Your task to perform on an android device: change the clock style Image 0: 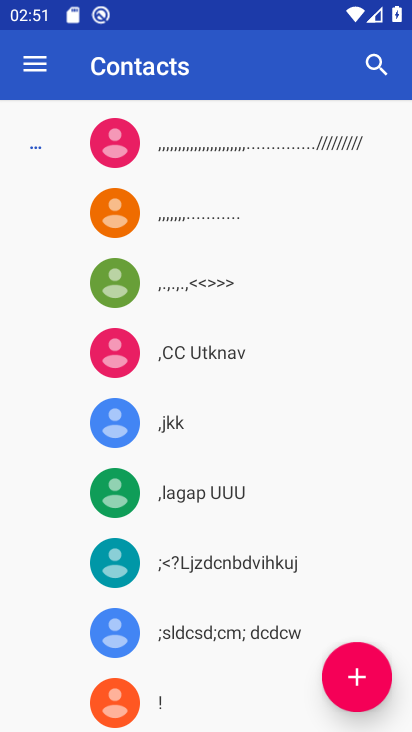
Step 0: press home button
Your task to perform on an android device: change the clock style Image 1: 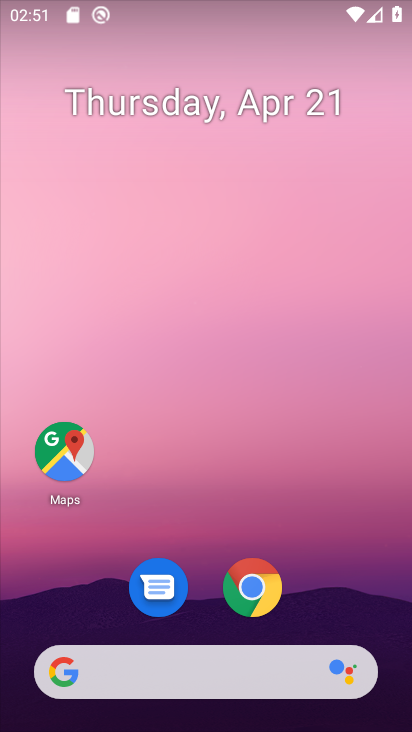
Step 1: drag from (347, 591) to (359, 160)
Your task to perform on an android device: change the clock style Image 2: 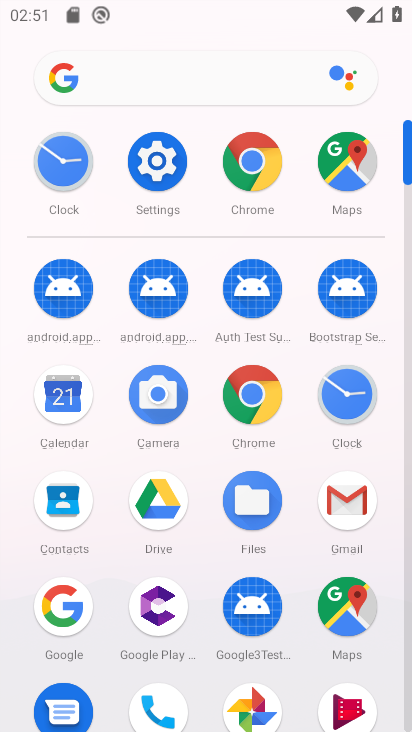
Step 2: click (347, 395)
Your task to perform on an android device: change the clock style Image 3: 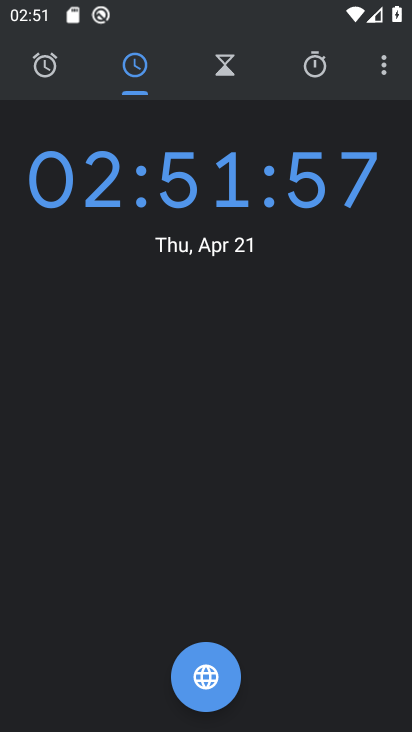
Step 3: click (384, 79)
Your task to perform on an android device: change the clock style Image 4: 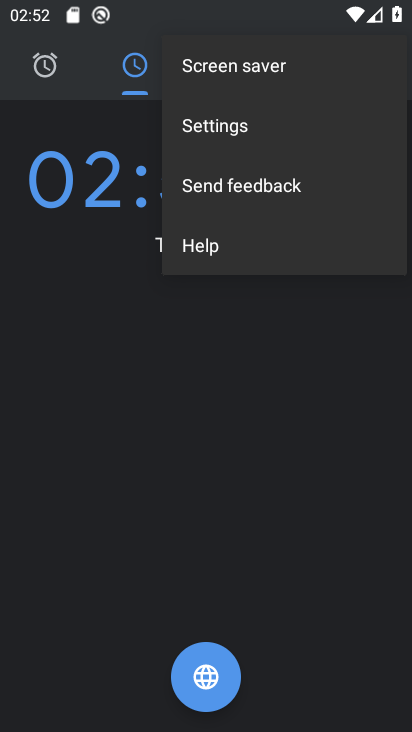
Step 4: click (305, 129)
Your task to perform on an android device: change the clock style Image 5: 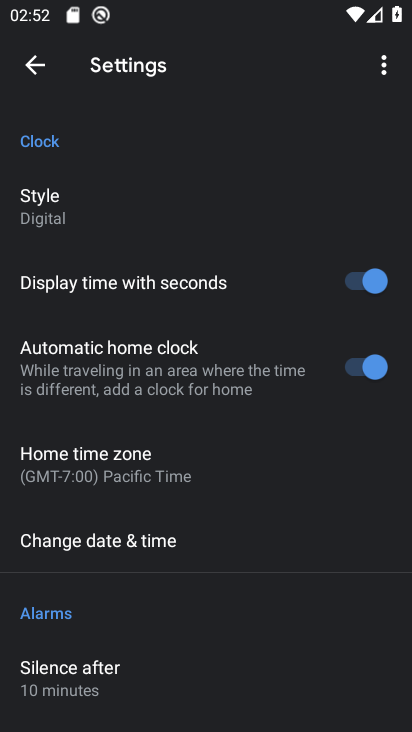
Step 5: drag from (308, 610) to (305, 502)
Your task to perform on an android device: change the clock style Image 6: 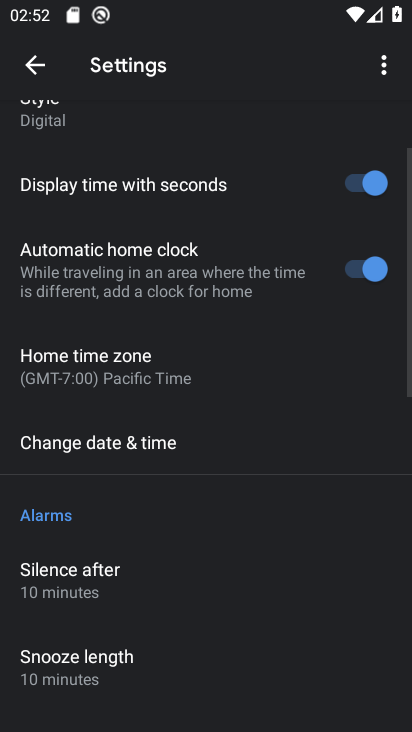
Step 6: drag from (319, 598) to (323, 517)
Your task to perform on an android device: change the clock style Image 7: 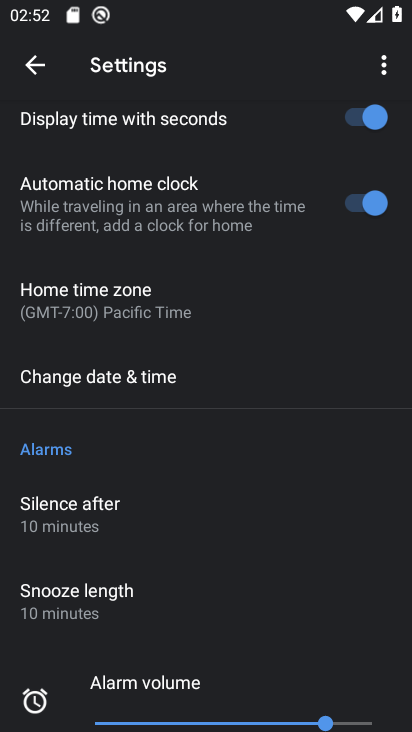
Step 7: drag from (334, 608) to (341, 503)
Your task to perform on an android device: change the clock style Image 8: 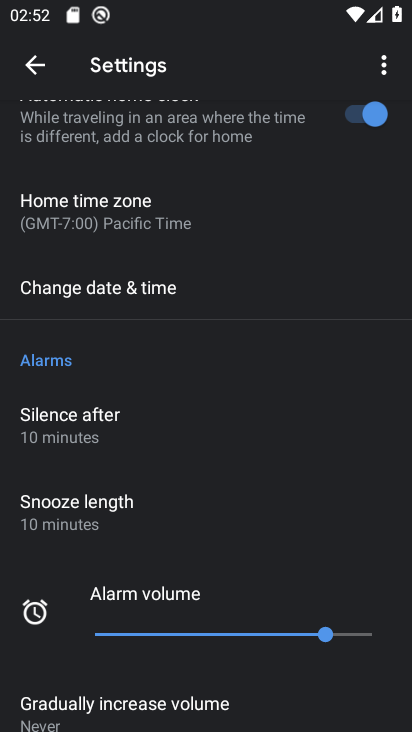
Step 8: drag from (354, 659) to (360, 514)
Your task to perform on an android device: change the clock style Image 9: 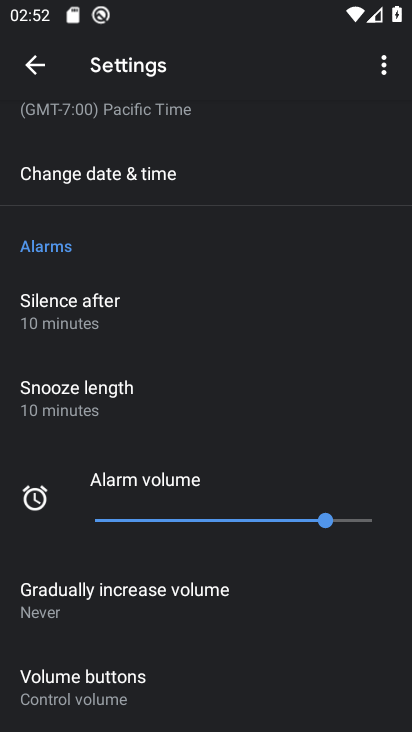
Step 9: drag from (348, 636) to (350, 486)
Your task to perform on an android device: change the clock style Image 10: 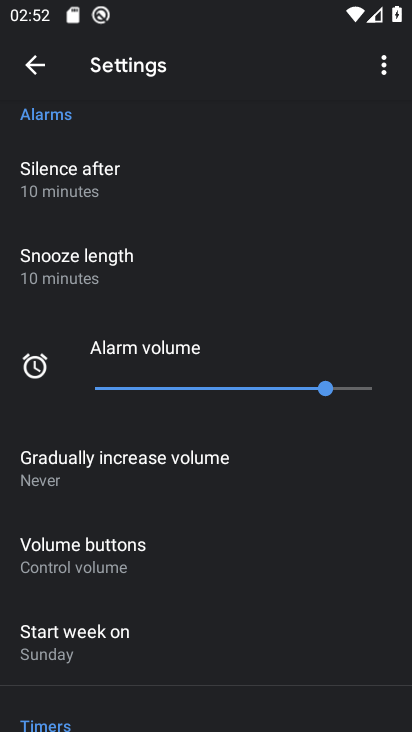
Step 10: drag from (339, 641) to (338, 486)
Your task to perform on an android device: change the clock style Image 11: 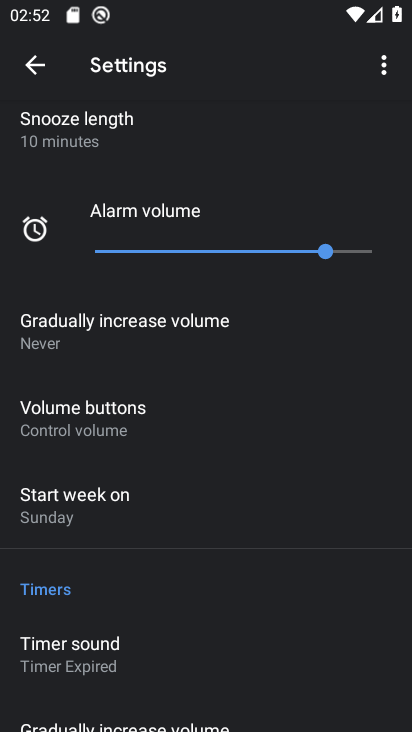
Step 11: drag from (331, 615) to (331, 475)
Your task to perform on an android device: change the clock style Image 12: 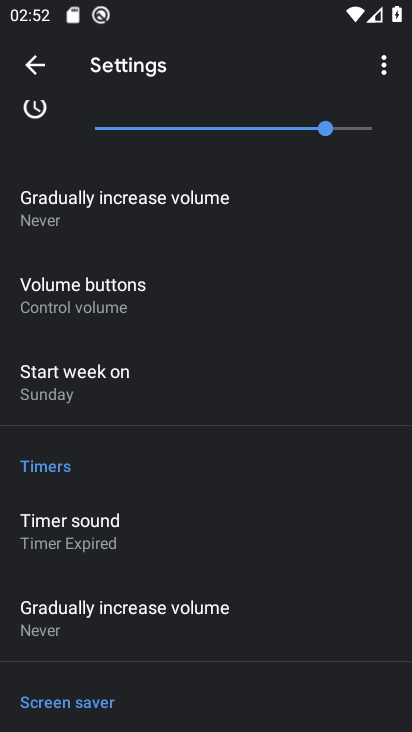
Step 12: drag from (334, 657) to (349, 461)
Your task to perform on an android device: change the clock style Image 13: 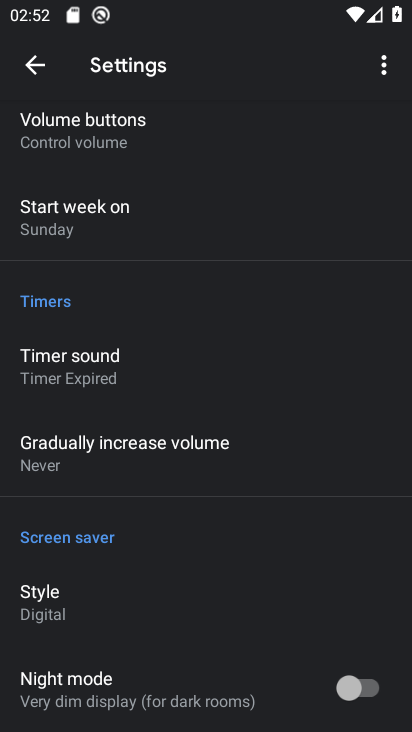
Step 13: drag from (370, 362) to (396, 538)
Your task to perform on an android device: change the clock style Image 14: 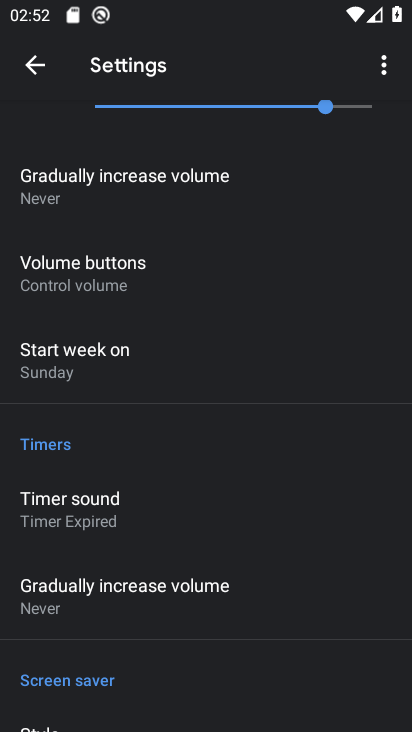
Step 14: drag from (366, 392) to (345, 530)
Your task to perform on an android device: change the clock style Image 15: 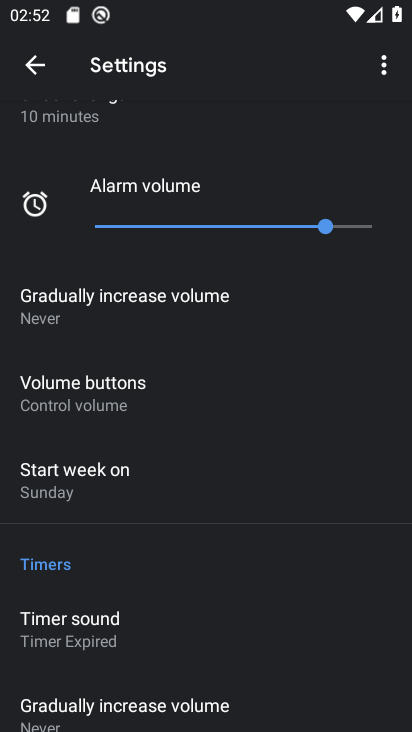
Step 15: drag from (349, 400) to (350, 530)
Your task to perform on an android device: change the clock style Image 16: 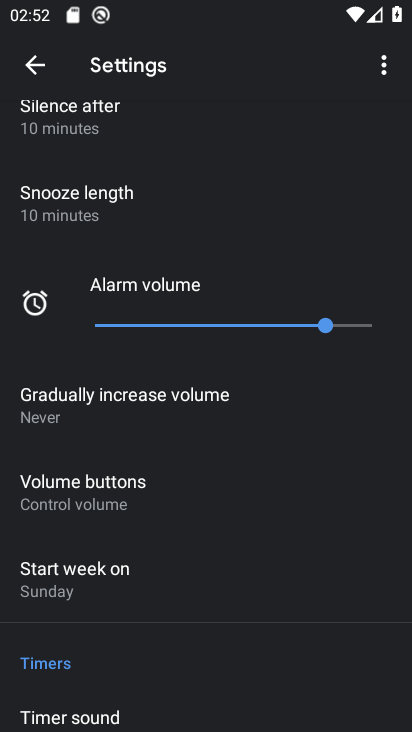
Step 16: drag from (363, 405) to (352, 537)
Your task to perform on an android device: change the clock style Image 17: 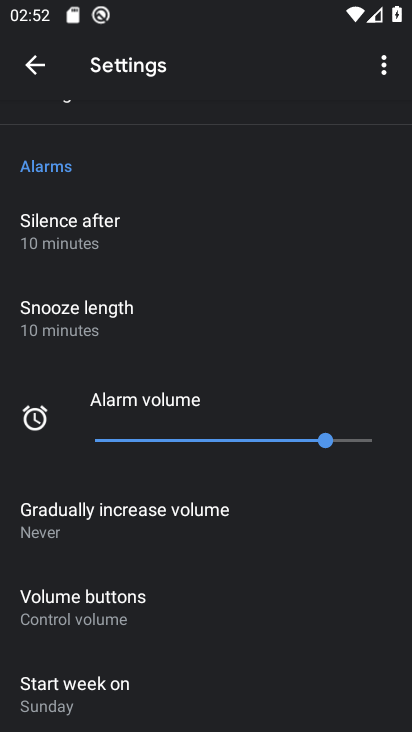
Step 17: drag from (372, 338) to (368, 500)
Your task to perform on an android device: change the clock style Image 18: 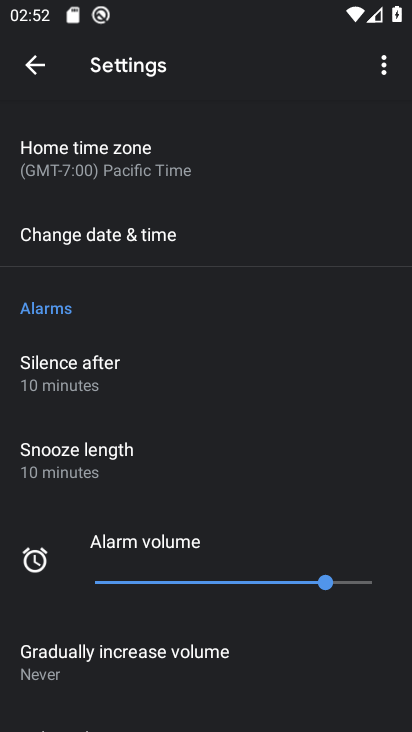
Step 18: drag from (357, 330) to (344, 477)
Your task to perform on an android device: change the clock style Image 19: 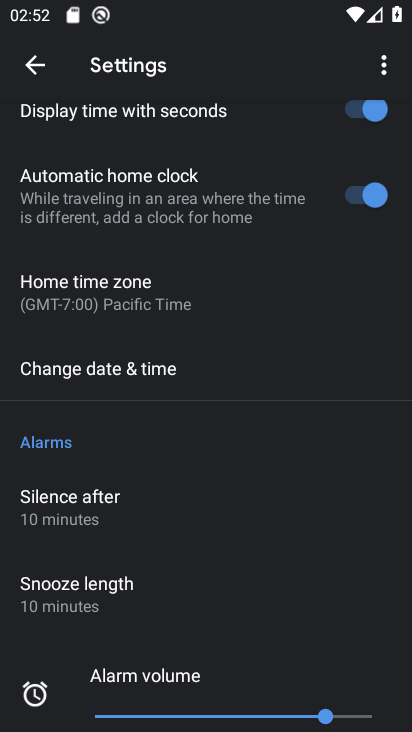
Step 19: drag from (322, 344) to (310, 570)
Your task to perform on an android device: change the clock style Image 20: 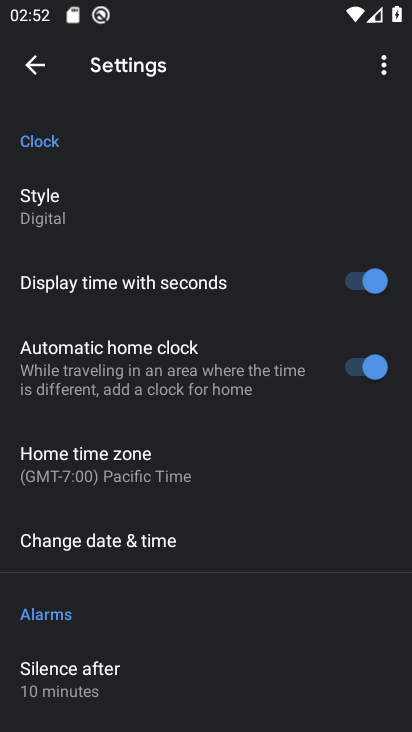
Step 20: click (62, 209)
Your task to perform on an android device: change the clock style Image 21: 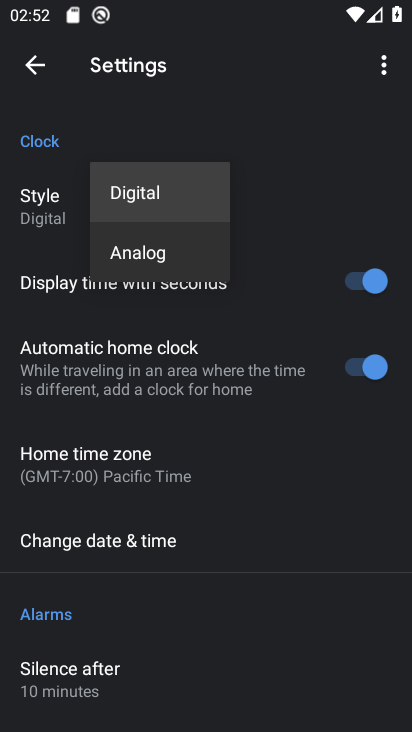
Step 21: click (143, 255)
Your task to perform on an android device: change the clock style Image 22: 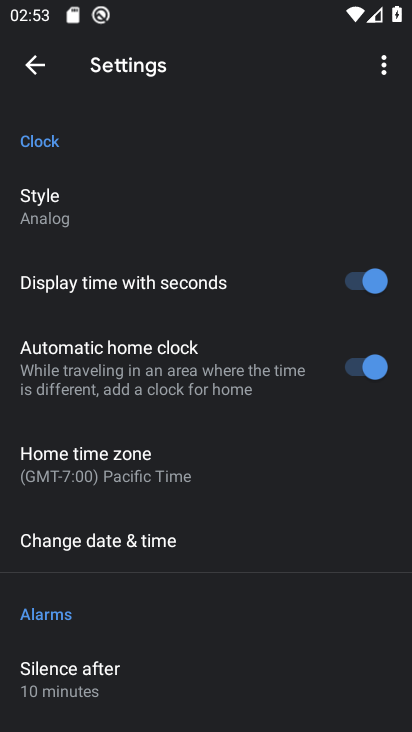
Step 22: task complete